Your task to perform on an android device: turn on improve location accuracy Image 0: 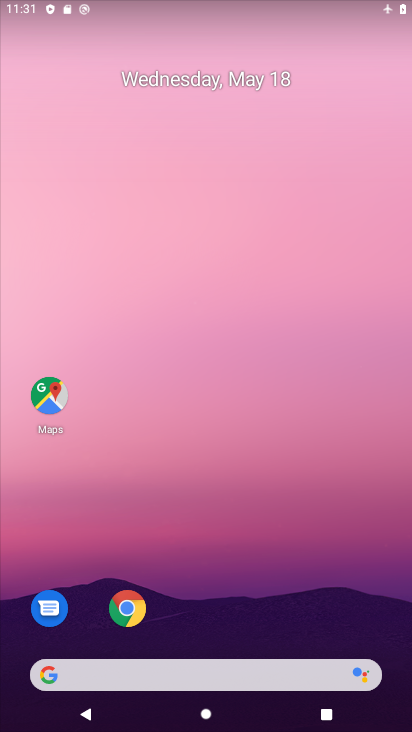
Step 0: drag from (379, 641) to (371, 195)
Your task to perform on an android device: turn on improve location accuracy Image 1: 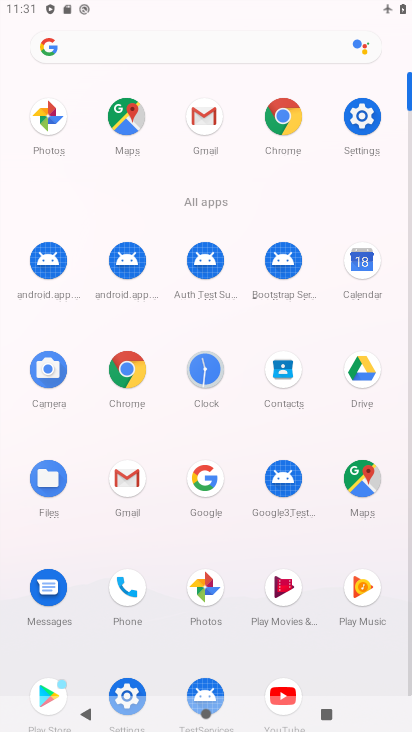
Step 1: click (344, 115)
Your task to perform on an android device: turn on improve location accuracy Image 2: 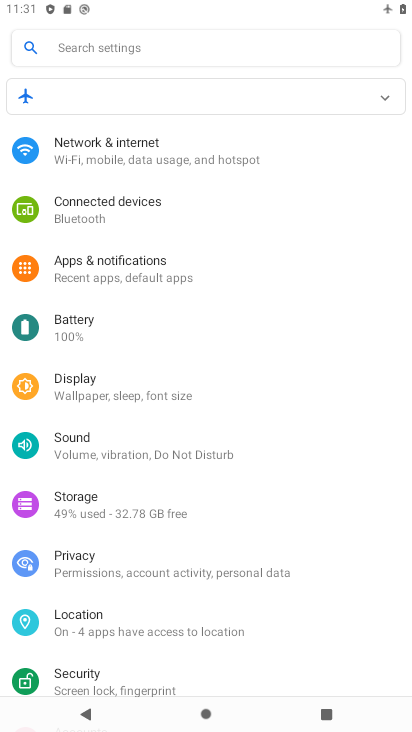
Step 2: click (206, 621)
Your task to perform on an android device: turn on improve location accuracy Image 3: 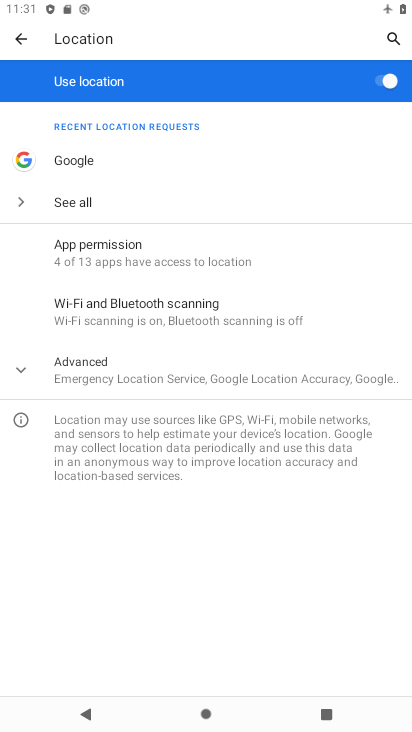
Step 3: click (201, 360)
Your task to perform on an android device: turn on improve location accuracy Image 4: 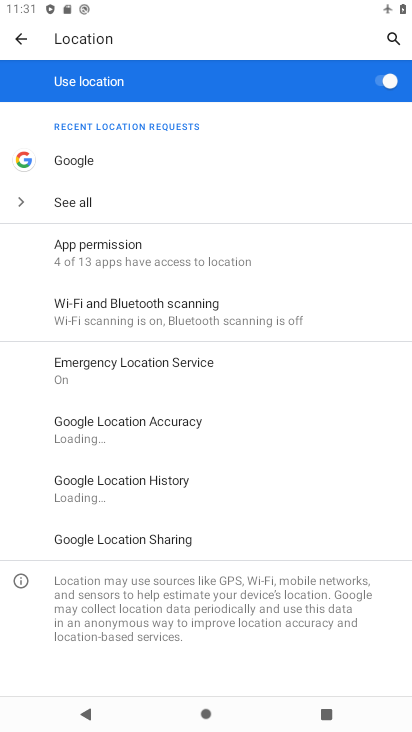
Step 4: click (184, 410)
Your task to perform on an android device: turn on improve location accuracy Image 5: 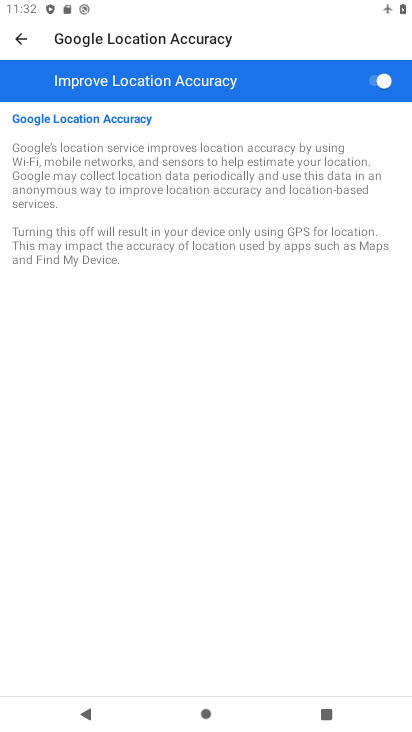
Step 5: task complete